Your task to perform on an android device: toggle location history Image 0: 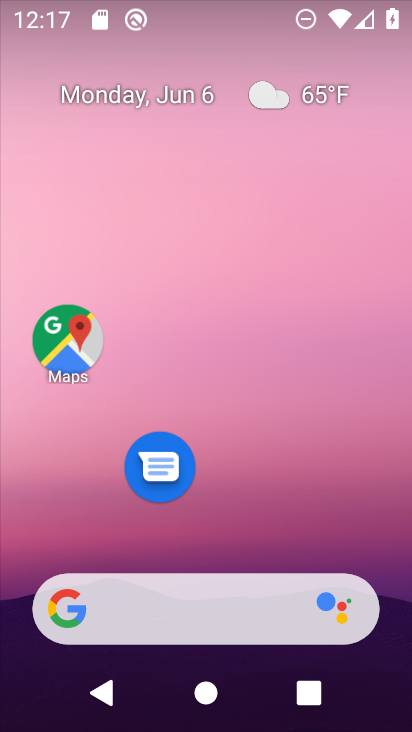
Step 0: drag from (298, 512) to (238, 51)
Your task to perform on an android device: toggle location history Image 1: 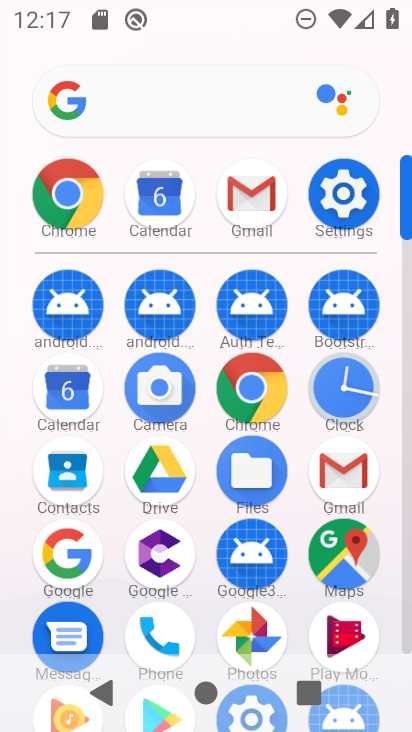
Step 1: click (335, 553)
Your task to perform on an android device: toggle location history Image 2: 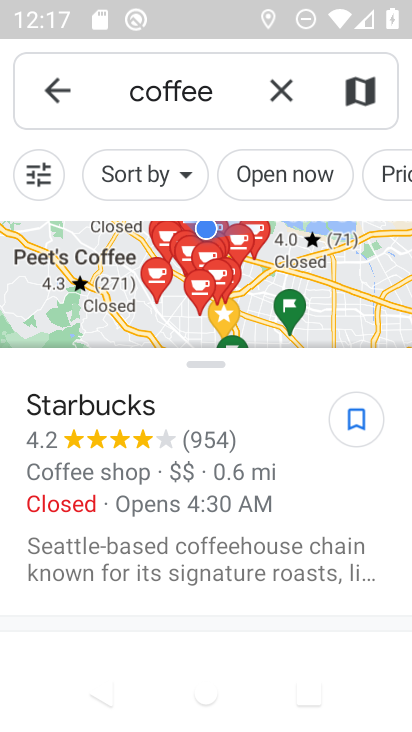
Step 2: click (41, 94)
Your task to perform on an android device: toggle location history Image 3: 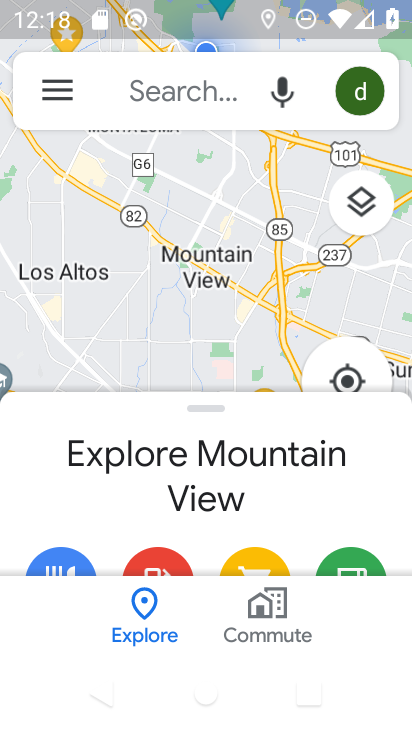
Step 3: click (60, 91)
Your task to perform on an android device: toggle location history Image 4: 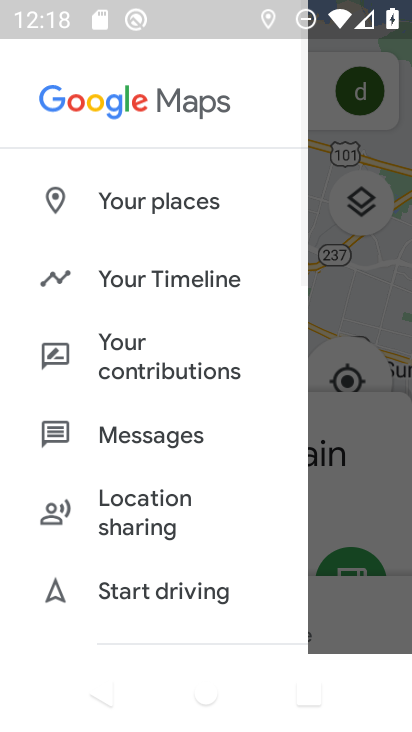
Step 4: click (148, 277)
Your task to perform on an android device: toggle location history Image 5: 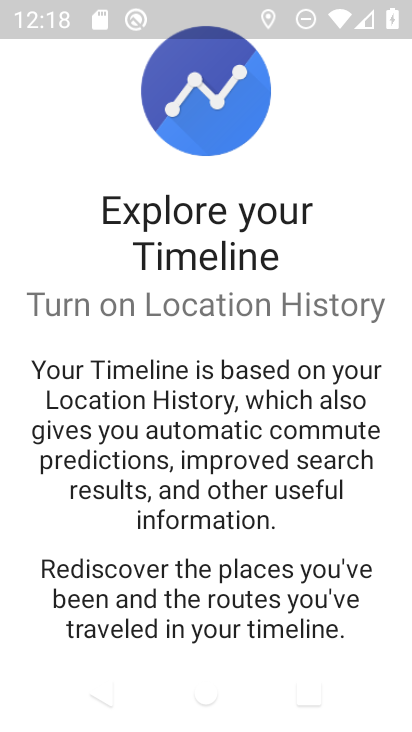
Step 5: drag from (299, 587) to (276, 89)
Your task to perform on an android device: toggle location history Image 6: 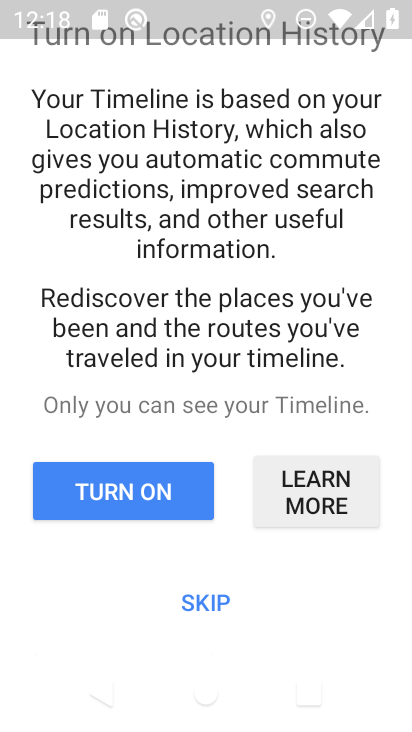
Step 6: click (137, 504)
Your task to perform on an android device: toggle location history Image 7: 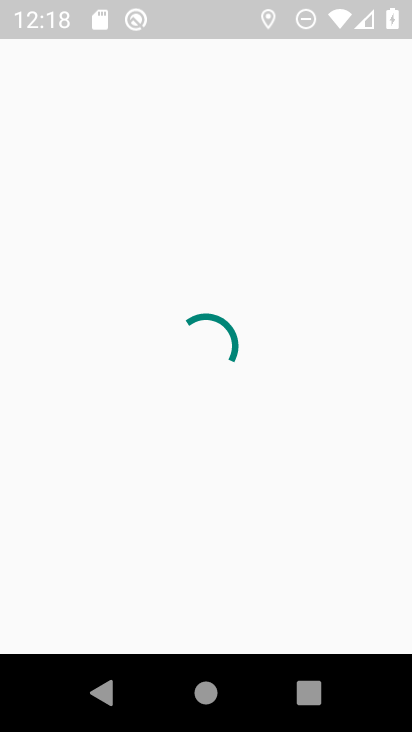
Step 7: drag from (386, 563) to (190, 138)
Your task to perform on an android device: toggle location history Image 8: 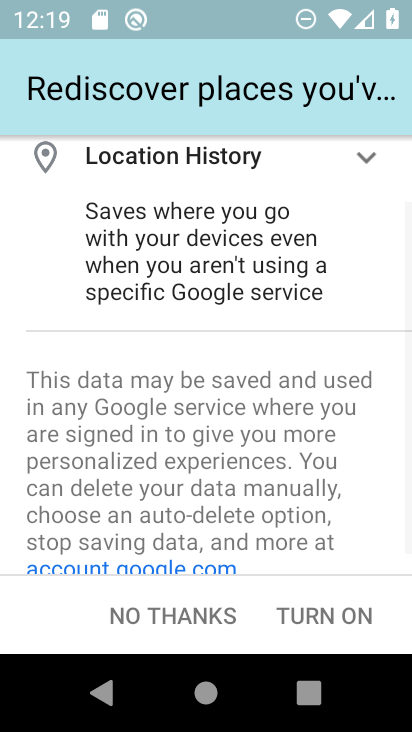
Step 8: drag from (362, 521) to (266, 235)
Your task to perform on an android device: toggle location history Image 9: 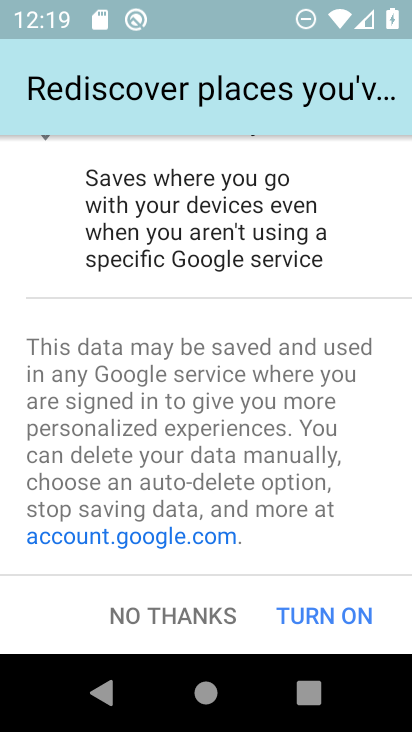
Step 9: click (320, 613)
Your task to perform on an android device: toggle location history Image 10: 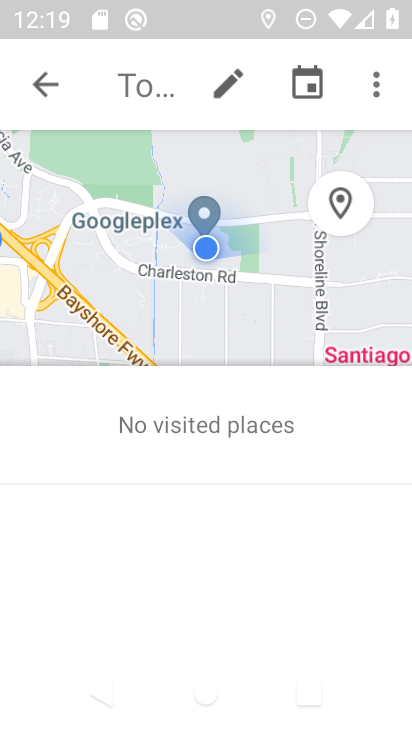
Step 10: task complete